Your task to perform on an android device: Open Wikipedia Image 0: 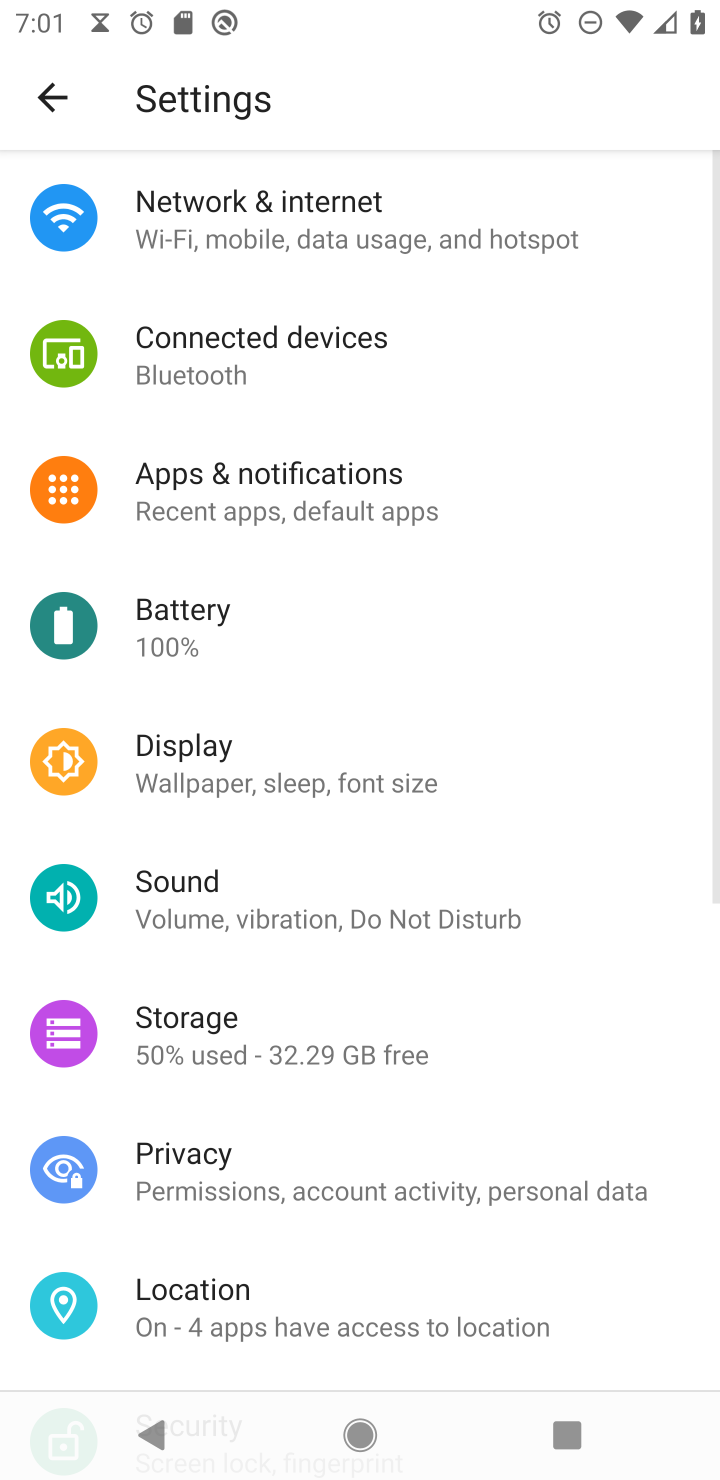
Step 0: press home button
Your task to perform on an android device: Open Wikipedia Image 1: 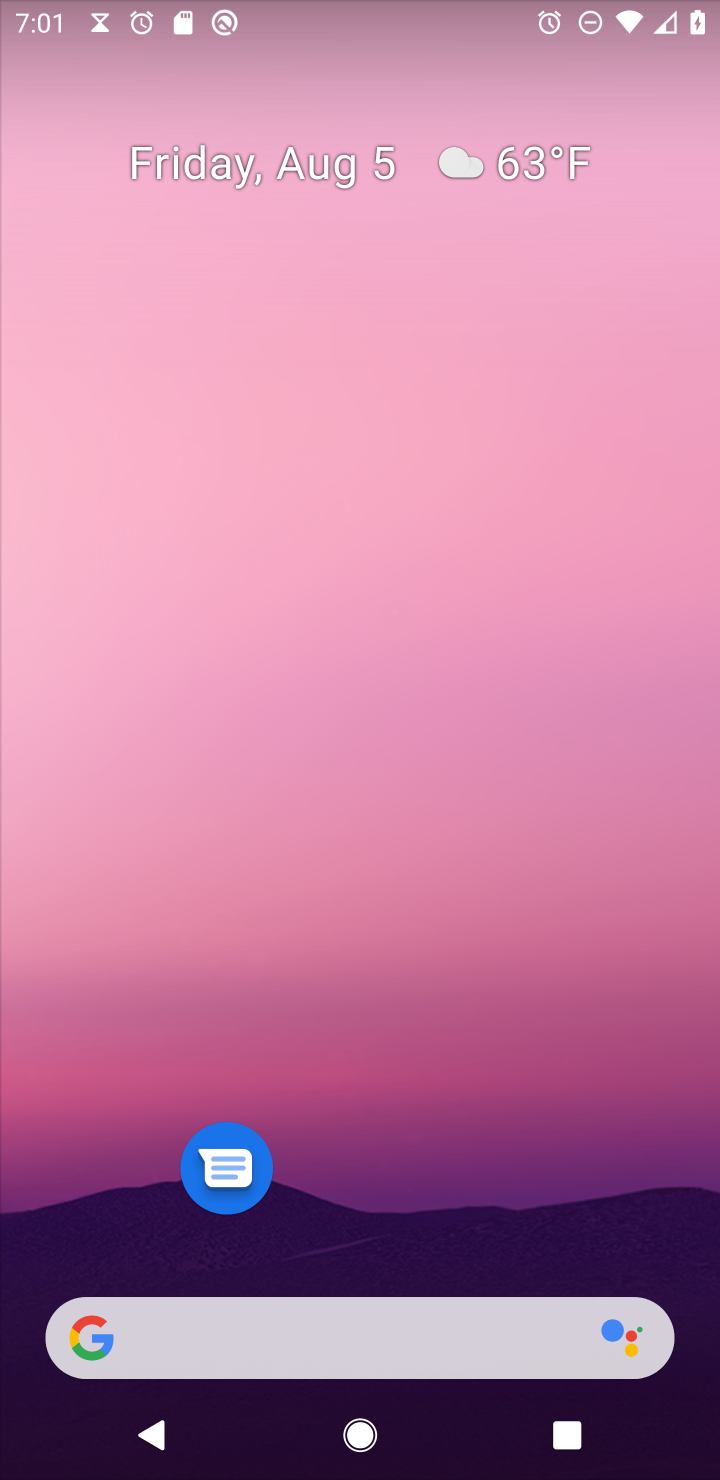
Step 1: click (88, 1342)
Your task to perform on an android device: Open Wikipedia Image 2: 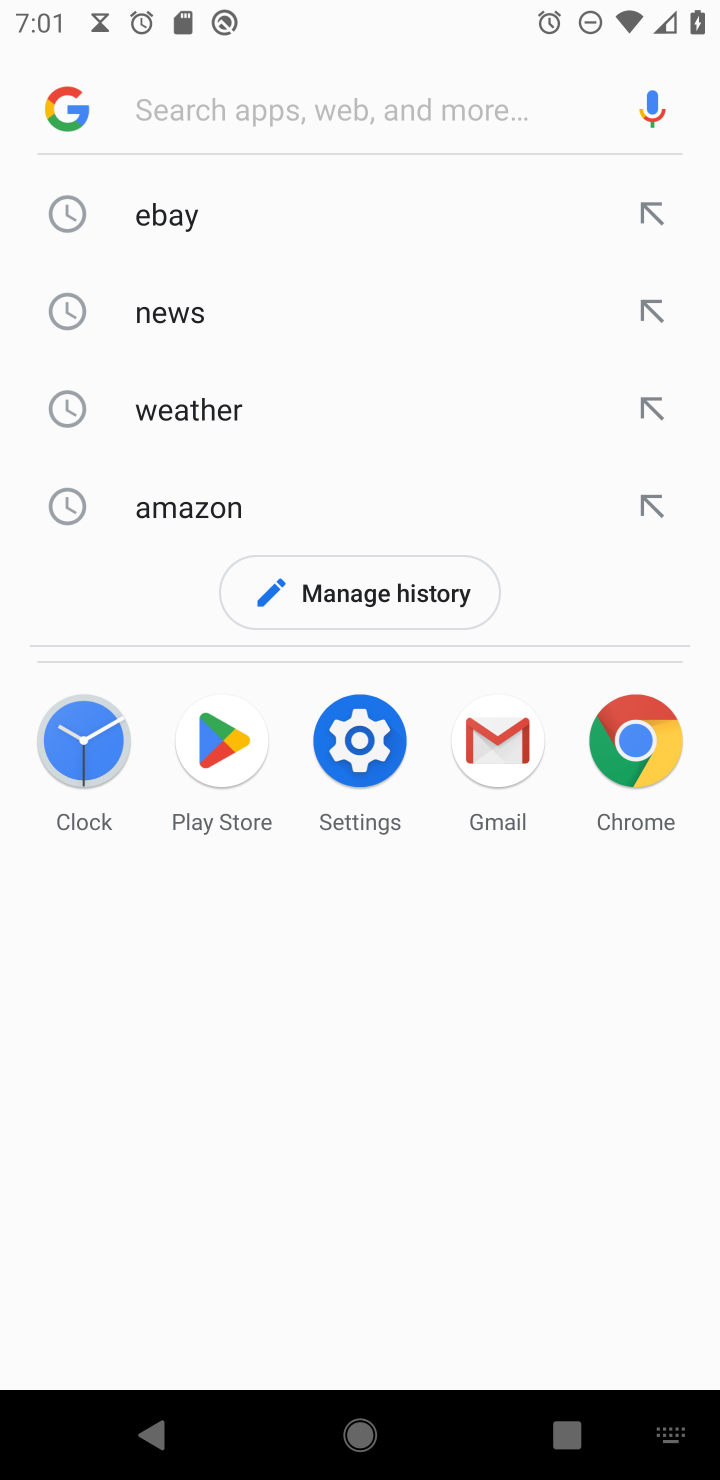
Step 2: type "Wikipedia"
Your task to perform on an android device: Open Wikipedia Image 3: 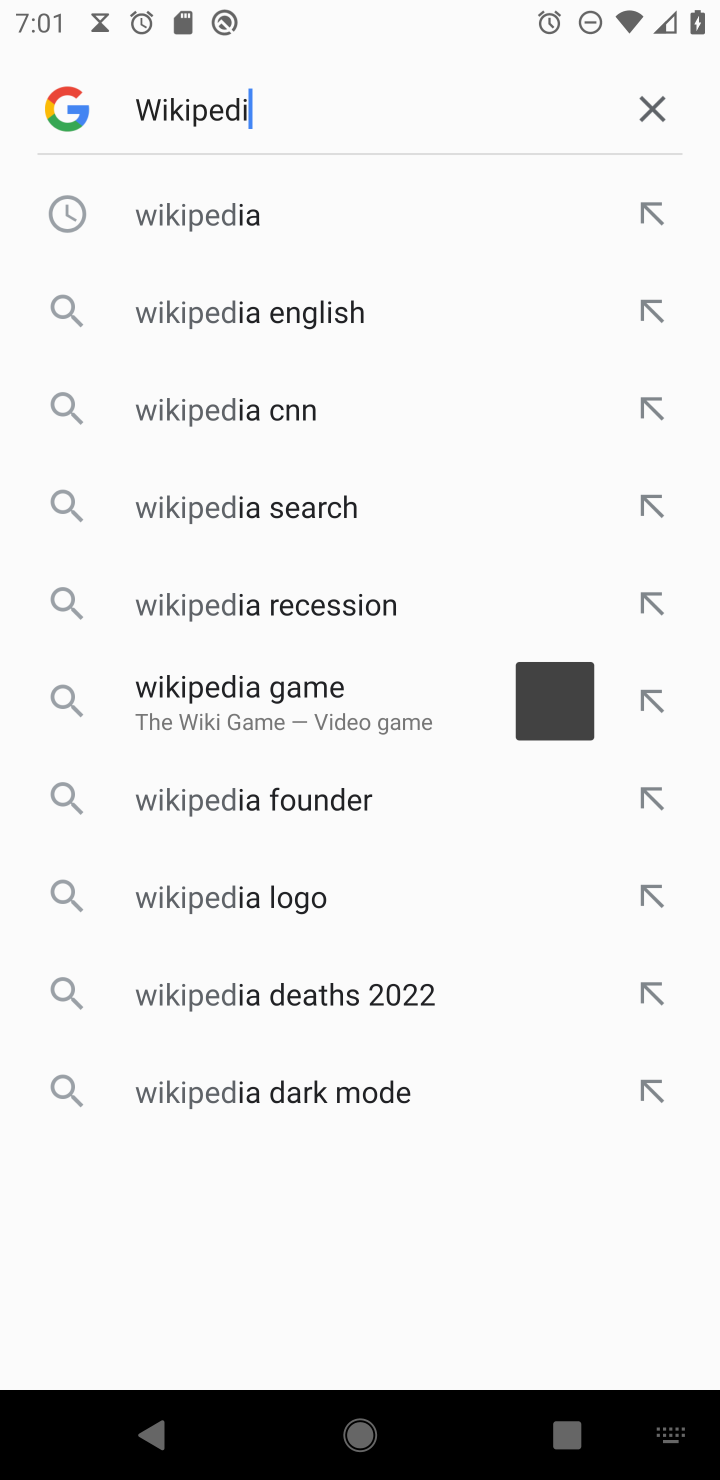
Step 3: press enter
Your task to perform on an android device: Open Wikipedia Image 4: 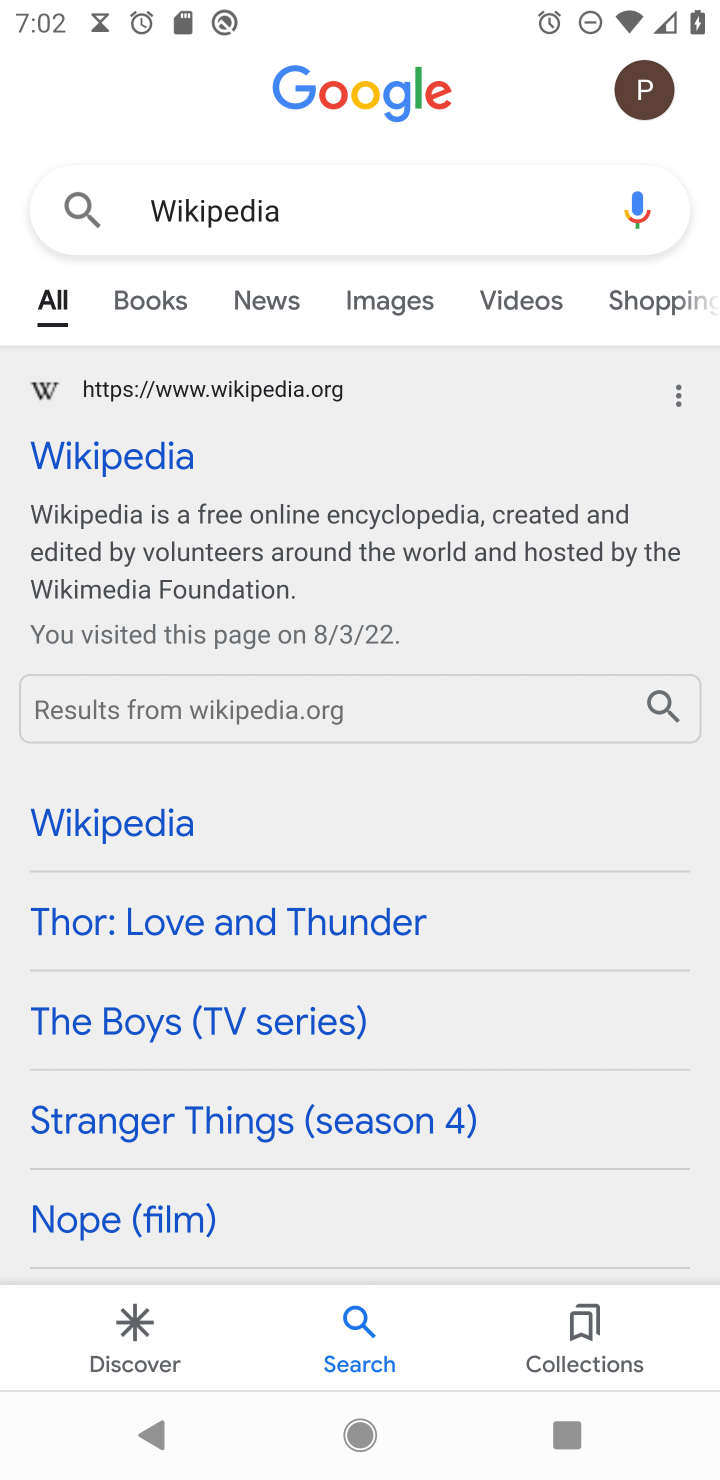
Step 4: click (91, 456)
Your task to perform on an android device: Open Wikipedia Image 5: 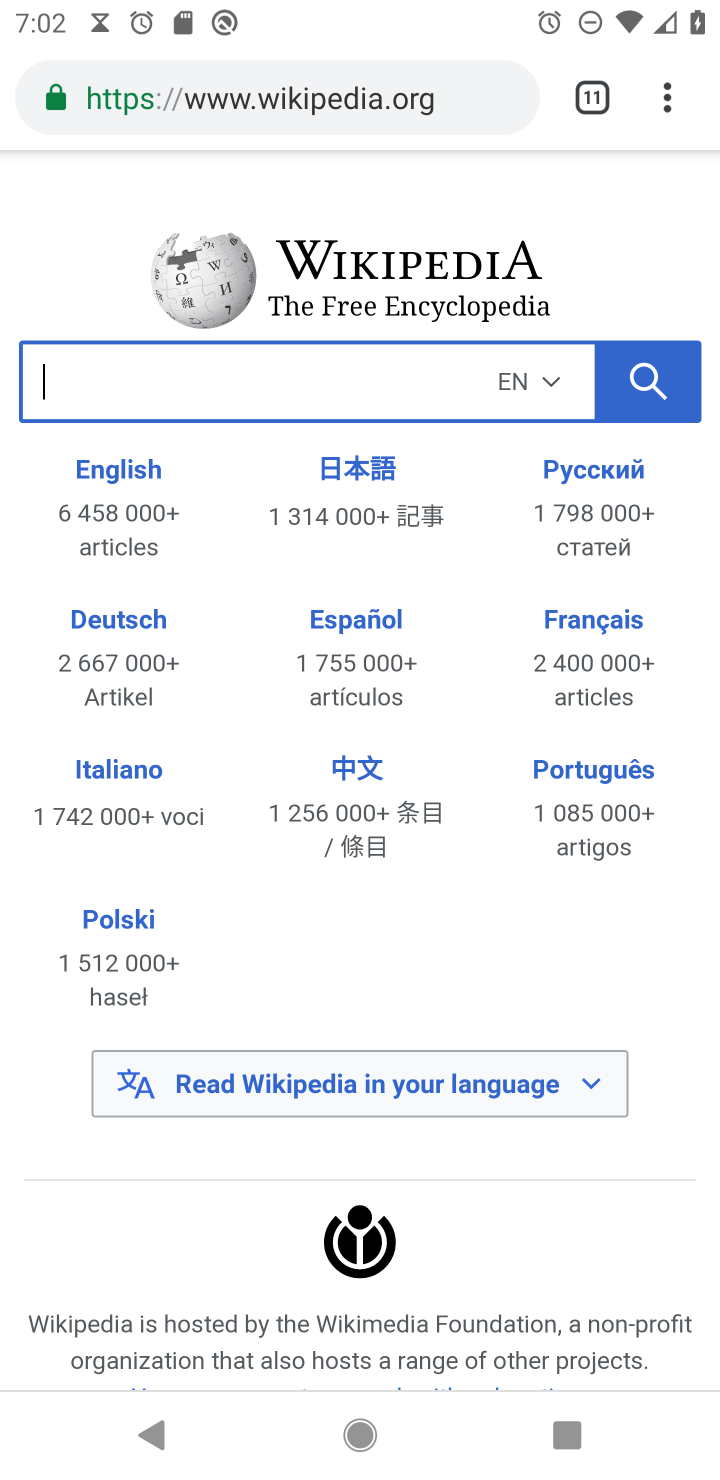
Step 5: task complete